Your task to perform on an android device: Turn on the flashlight Image 0: 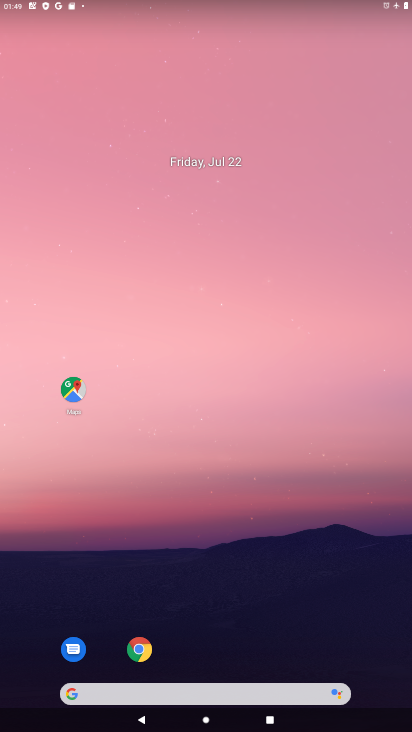
Step 0: drag from (285, 576) to (245, 96)
Your task to perform on an android device: Turn on the flashlight Image 1: 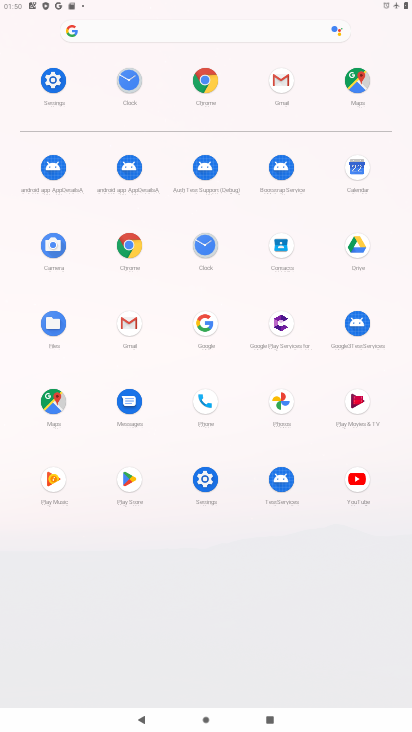
Step 1: click (55, 78)
Your task to perform on an android device: Turn on the flashlight Image 2: 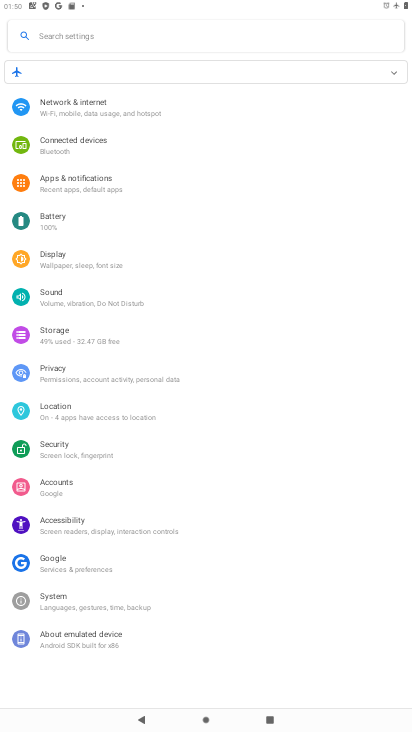
Step 2: click (109, 254)
Your task to perform on an android device: Turn on the flashlight Image 3: 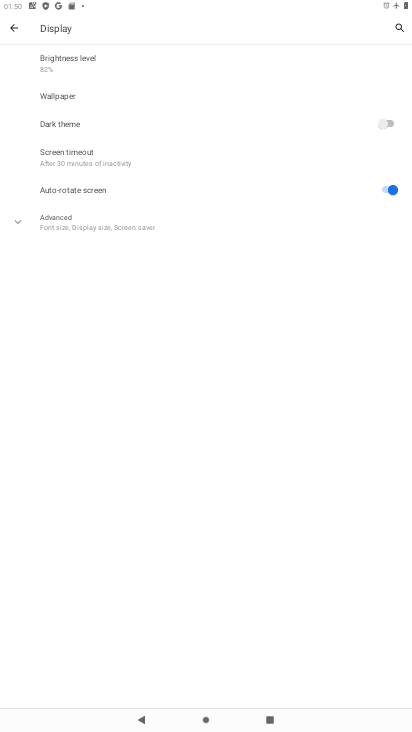
Step 3: task complete